Your task to perform on an android device: What's the weather? Image 0: 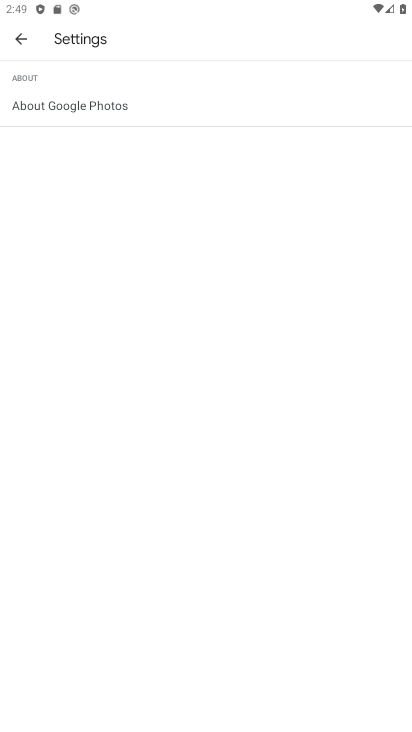
Step 0: press home button
Your task to perform on an android device: What's the weather? Image 1: 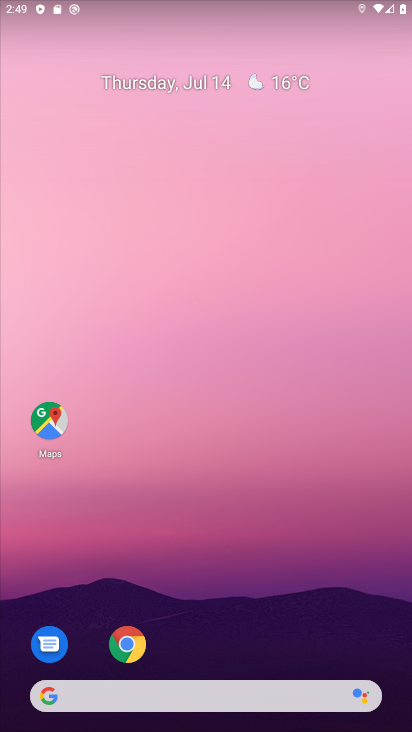
Step 1: drag from (205, 659) to (210, 233)
Your task to perform on an android device: What's the weather? Image 2: 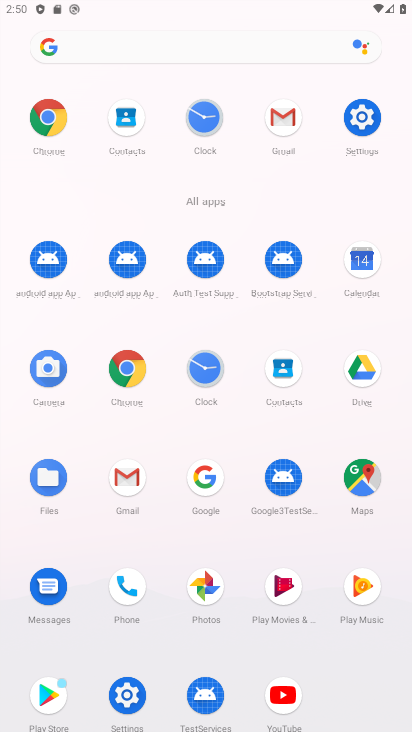
Step 2: click (202, 488)
Your task to perform on an android device: What's the weather? Image 3: 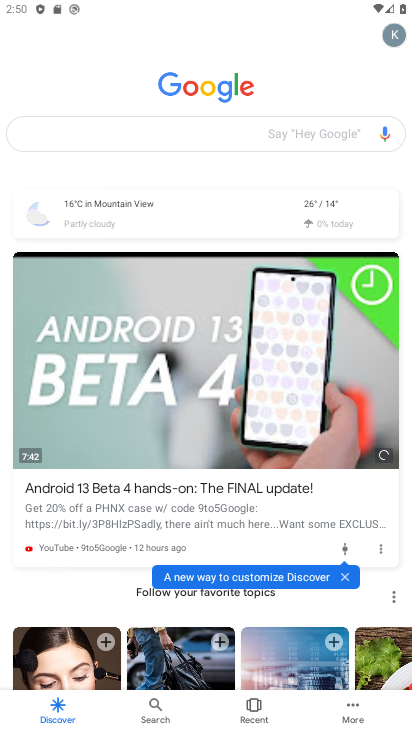
Step 3: click (112, 130)
Your task to perform on an android device: What's the weather? Image 4: 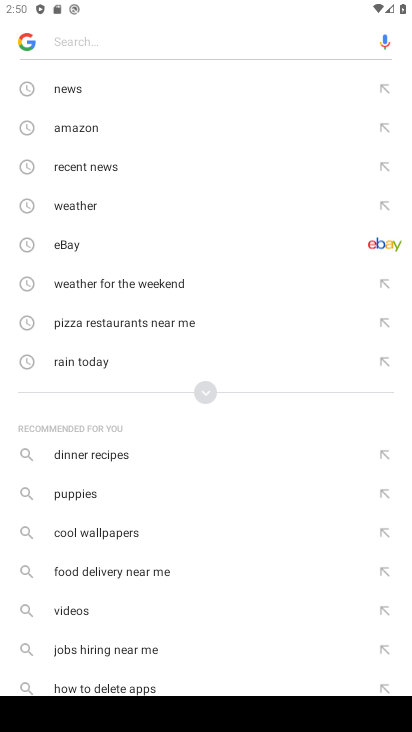
Step 4: type "weather"
Your task to perform on an android device: What's the weather? Image 5: 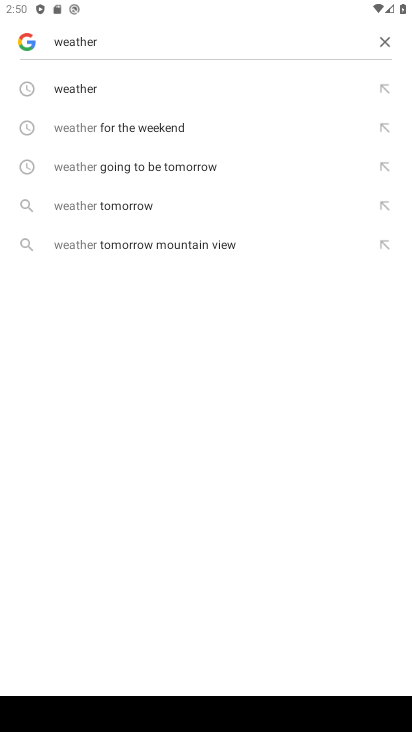
Step 5: click (98, 95)
Your task to perform on an android device: What's the weather? Image 6: 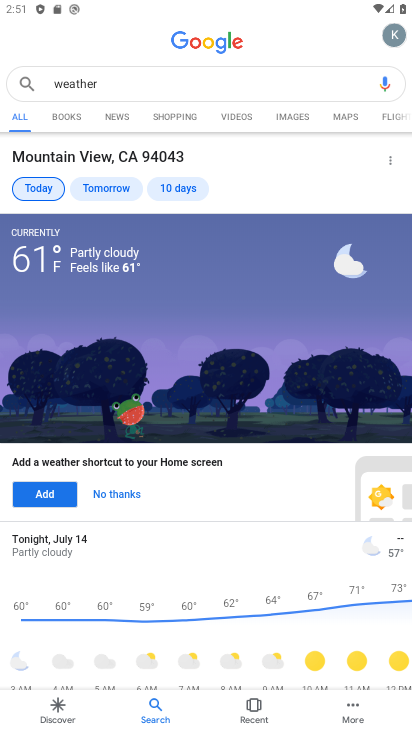
Step 6: task complete